Your task to perform on an android device: turn on sleep mode Image 0: 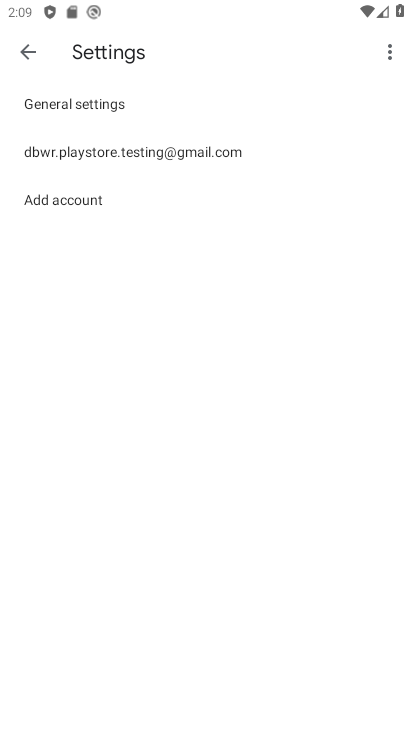
Step 0: press home button
Your task to perform on an android device: turn on sleep mode Image 1: 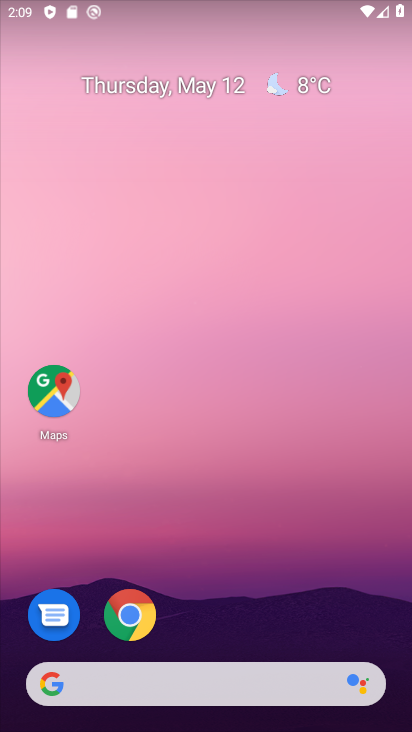
Step 1: drag from (214, 641) to (283, 124)
Your task to perform on an android device: turn on sleep mode Image 2: 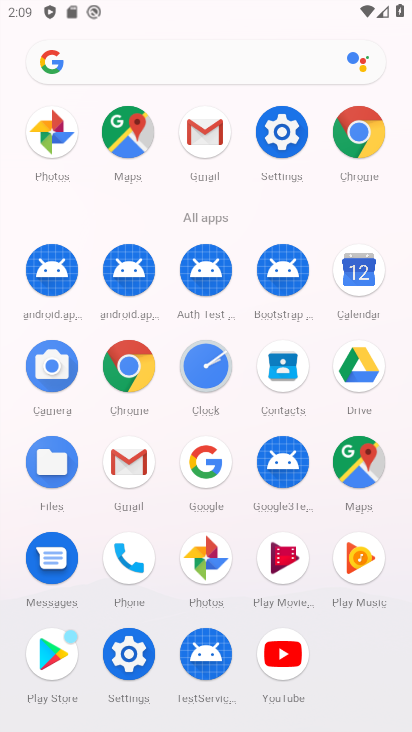
Step 2: click (154, 676)
Your task to perform on an android device: turn on sleep mode Image 3: 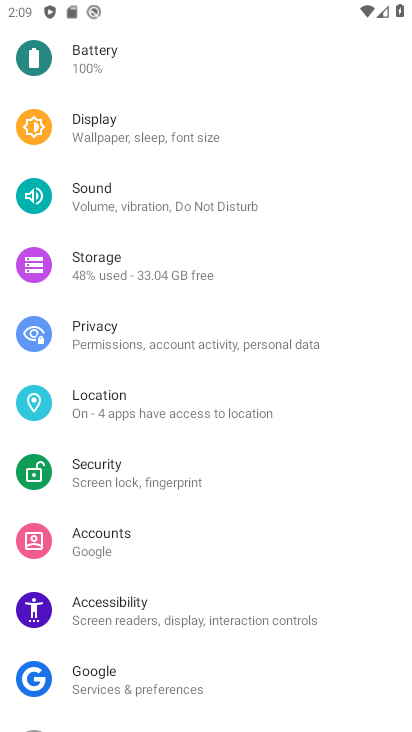
Step 3: click (146, 142)
Your task to perform on an android device: turn on sleep mode Image 4: 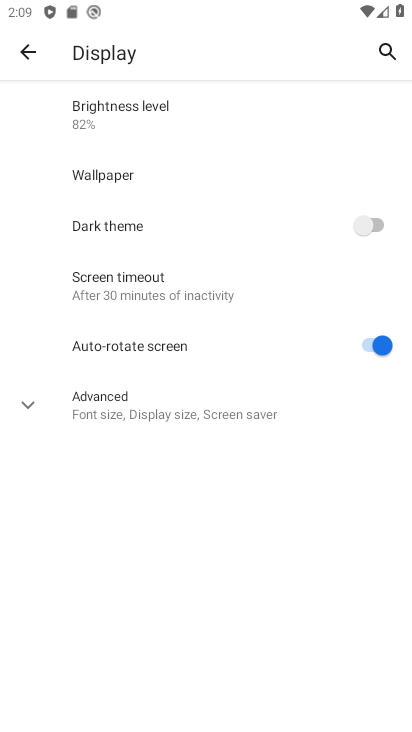
Step 4: click (158, 396)
Your task to perform on an android device: turn on sleep mode Image 5: 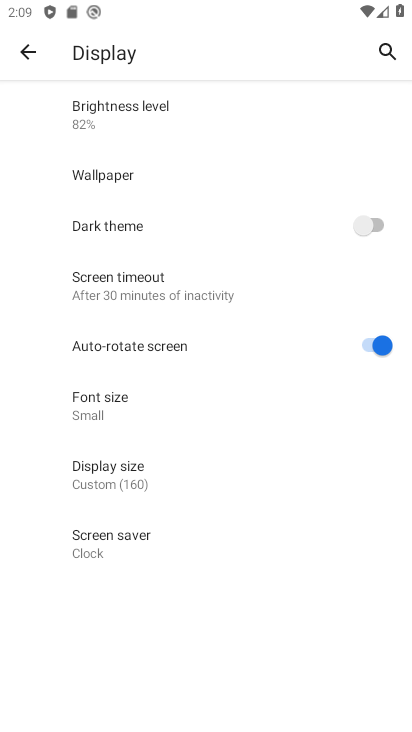
Step 5: task complete